Your task to perform on an android device: Go to settings Image 0: 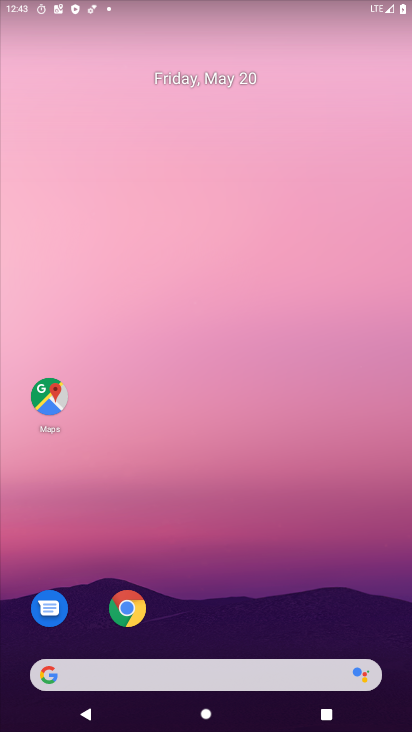
Step 0: drag from (364, 608) to (380, 204)
Your task to perform on an android device: Go to settings Image 1: 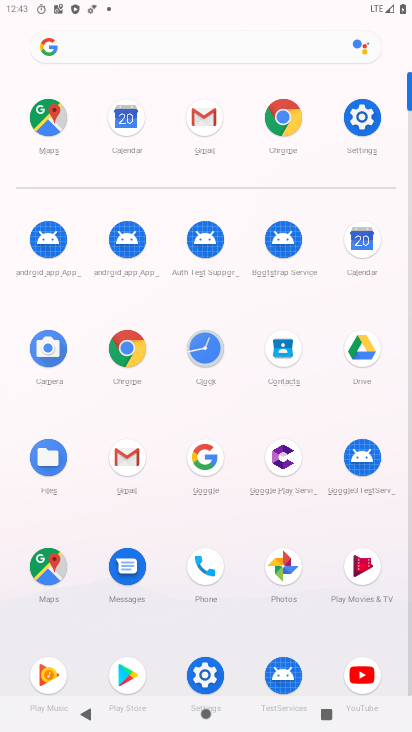
Step 1: click (355, 136)
Your task to perform on an android device: Go to settings Image 2: 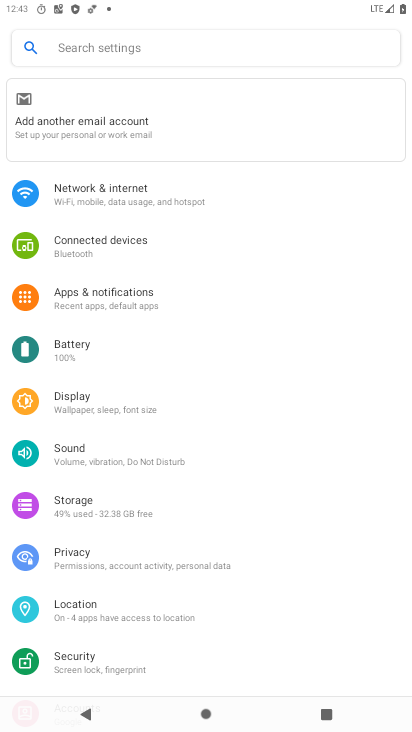
Step 2: task complete